Your task to perform on an android device: open wifi settings Image 0: 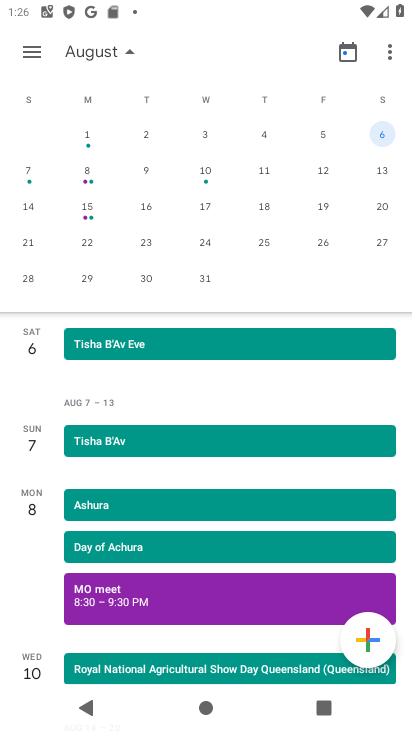
Step 0: press home button
Your task to perform on an android device: open wifi settings Image 1: 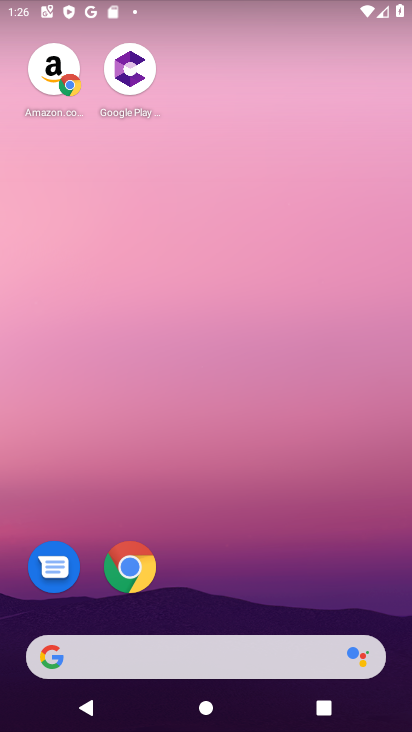
Step 1: drag from (326, 502) to (301, 83)
Your task to perform on an android device: open wifi settings Image 2: 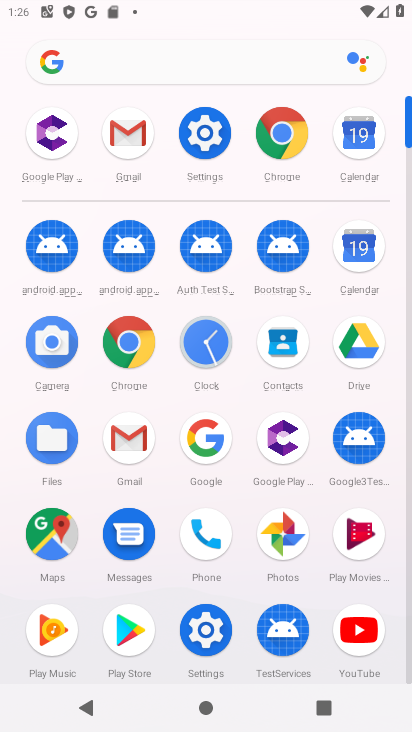
Step 2: click (202, 119)
Your task to perform on an android device: open wifi settings Image 3: 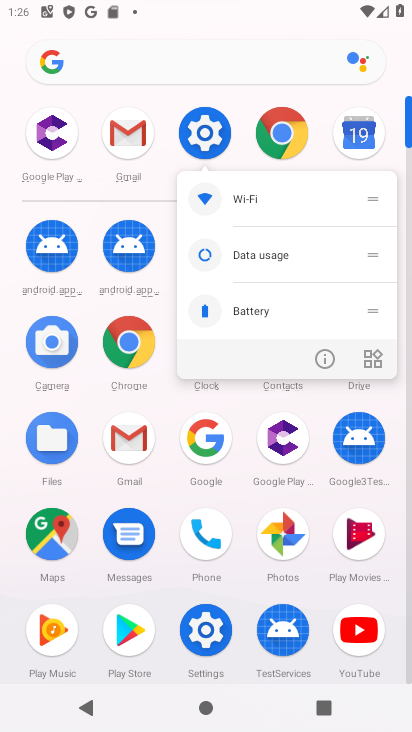
Step 3: click (202, 117)
Your task to perform on an android device: open wifi settings Image 4: 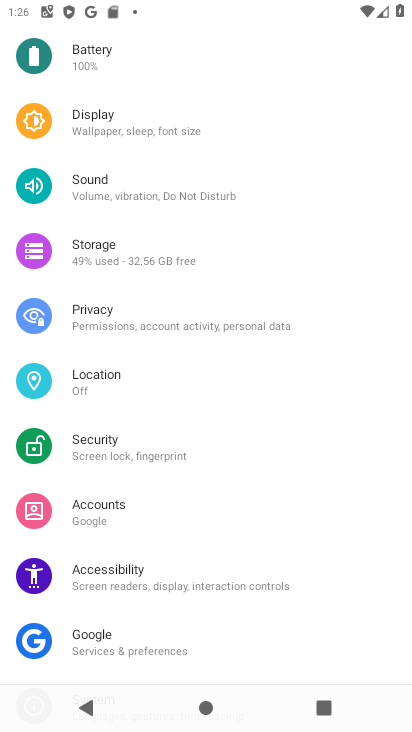
Step 4: drag from (202, 115) to (185, 625)
Your task to perform on an android device: open wifi settings Image 5: 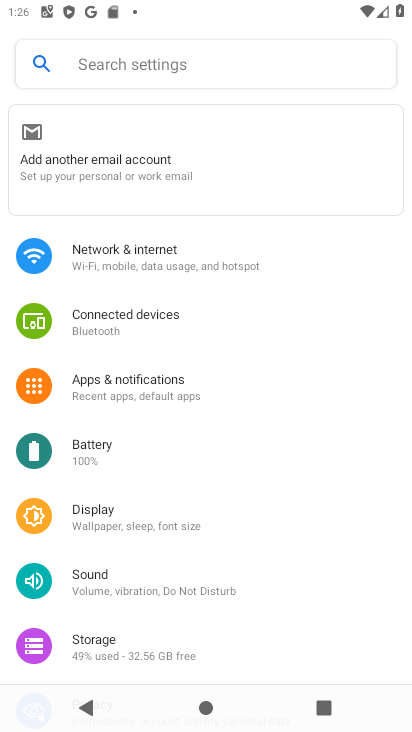
Step 5: click (188, 251)
Your task to perform on an android device: open wifi settings Image 6: 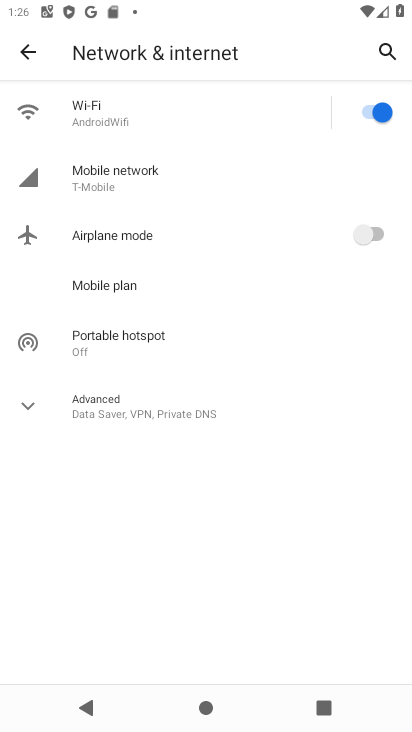
Step 6: click (63, 132)
Your task to perform on an android device: open wifi settings Image 7: 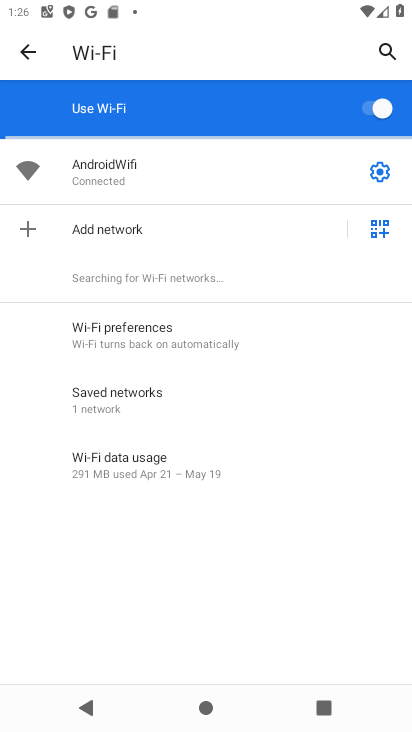
Step 7: task complete